Your task to perform on an android device: open app "Google Play Music" (install if not already installed) Image 0: 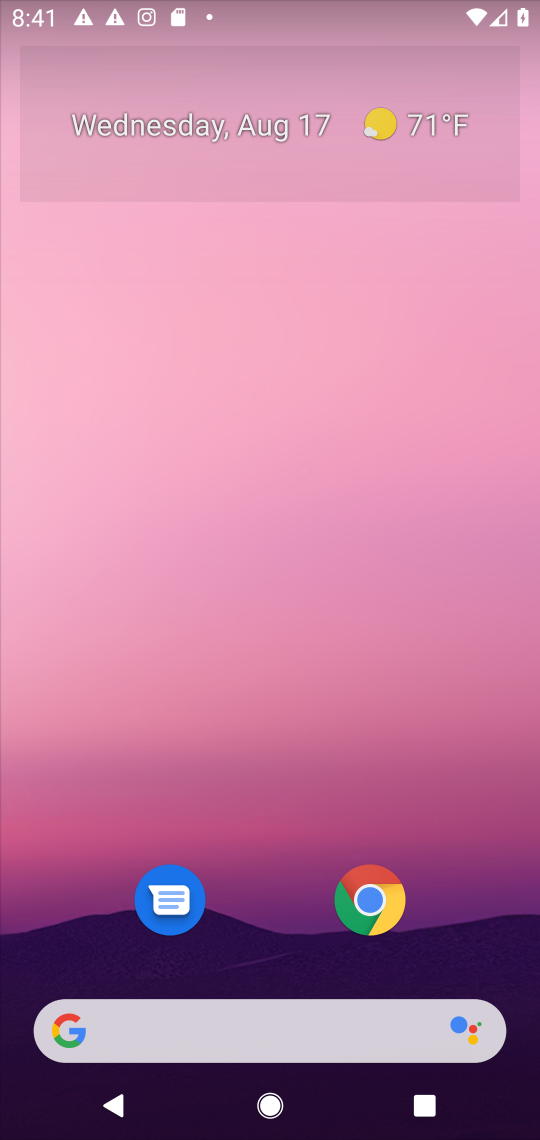
Step 0: drag from (321, 909) to (379, 211)
Your task to perform on an android device: open app "Google Play Music" (install if not already installed) Image 1: 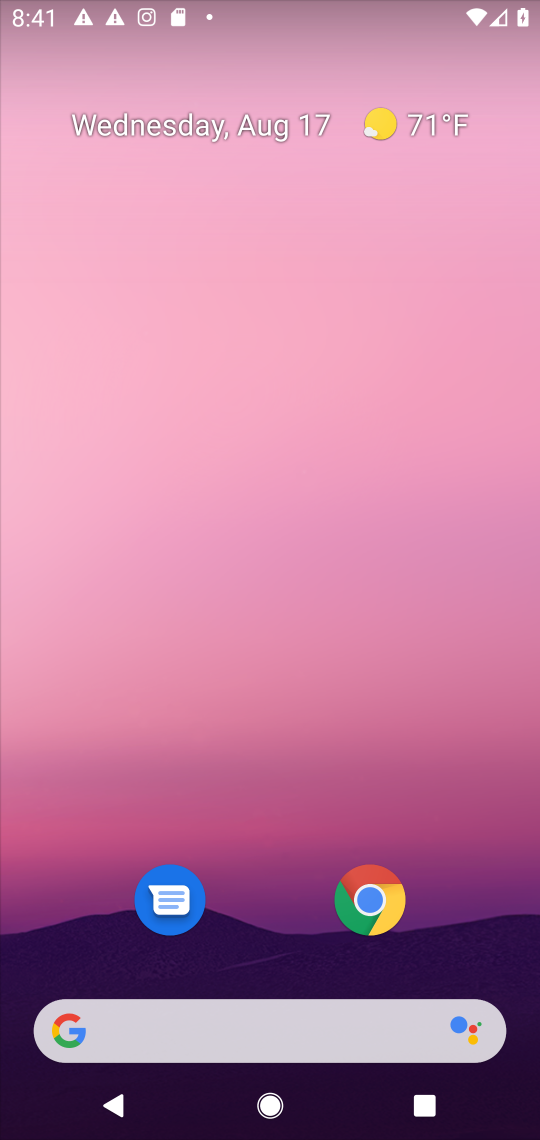
Step 1: drag from (286, 922) to (168, 106)
Your task to perform on an android device: open app "Google Play Music" (install if not already installed) Image 2: 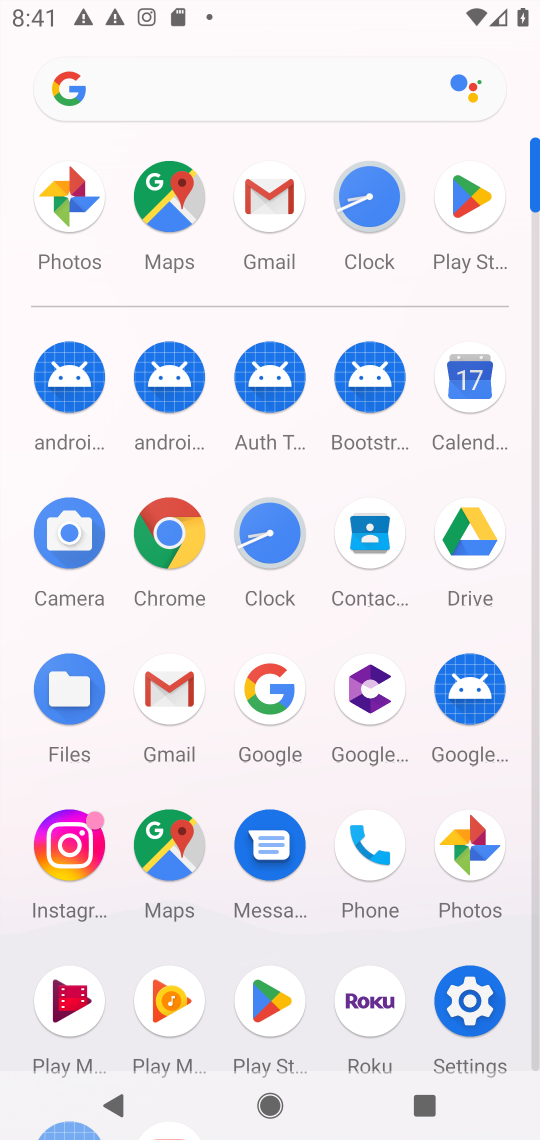
Step 2: click (454, 206)
Your task to perform on an android device: open app "Google Play Music" (install if not already installed) Image 3: 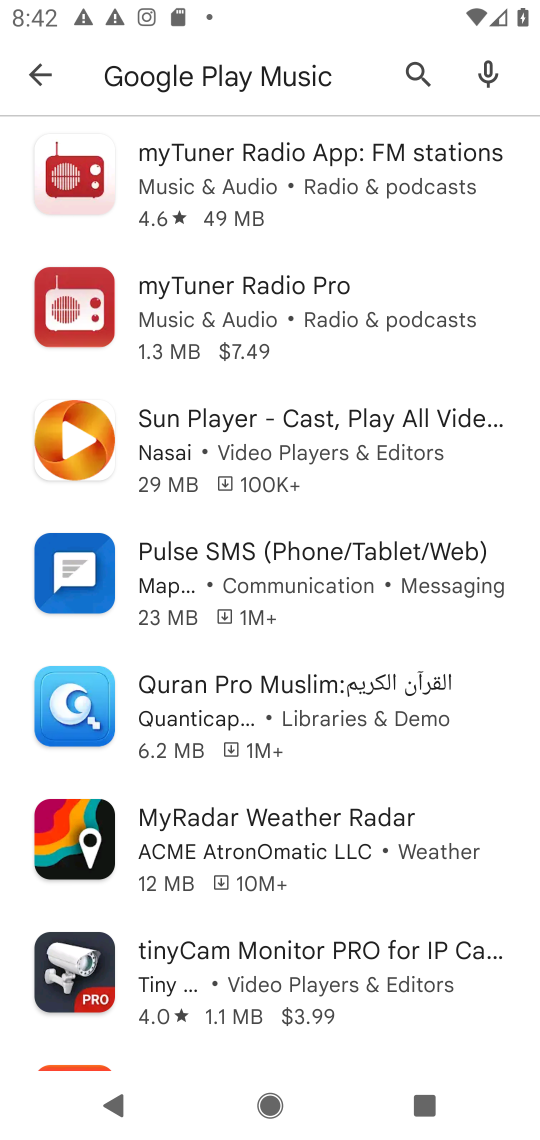
Step 3: task complete